Your task to perform on an android device: check the backup settings in the google photos Image 0: 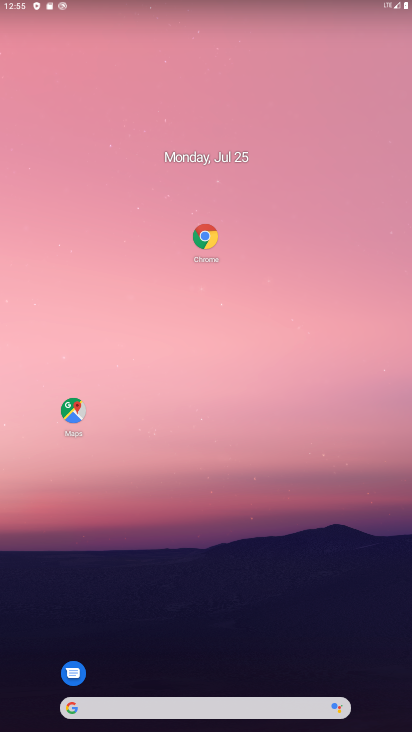
Step 0: drag from (285, 709) to (322, 41)
Your task to perform on an android device: check the backup settings in the google photos Image 1: 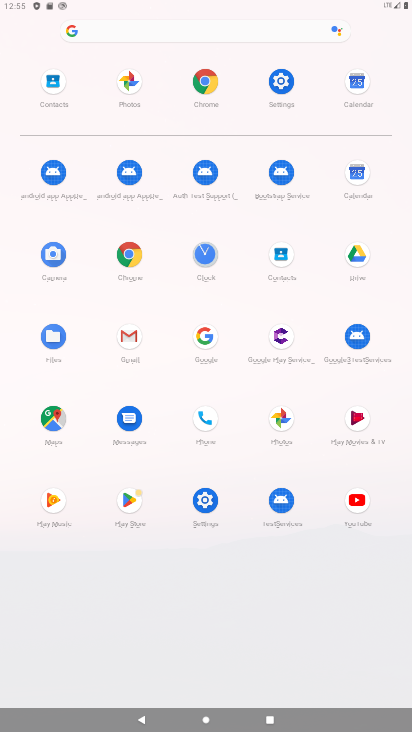
Step 1: click (287, 417)
Your task to perform on an android device: check the backup settings in the google photos Image 2: 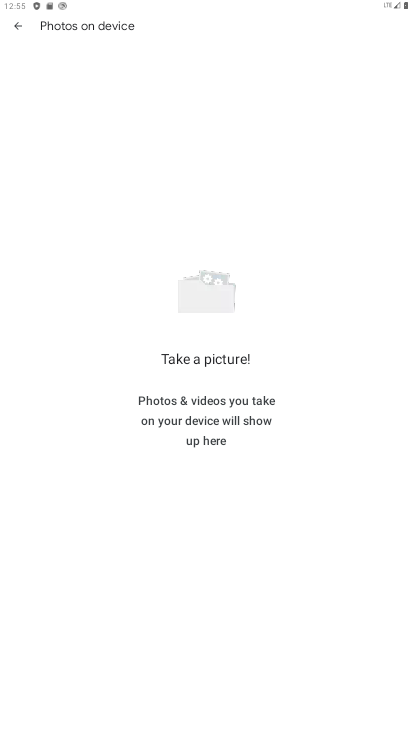
Step 2: press home button
Your task to perform on an android device: check the backup settings in the google photos Image 3: 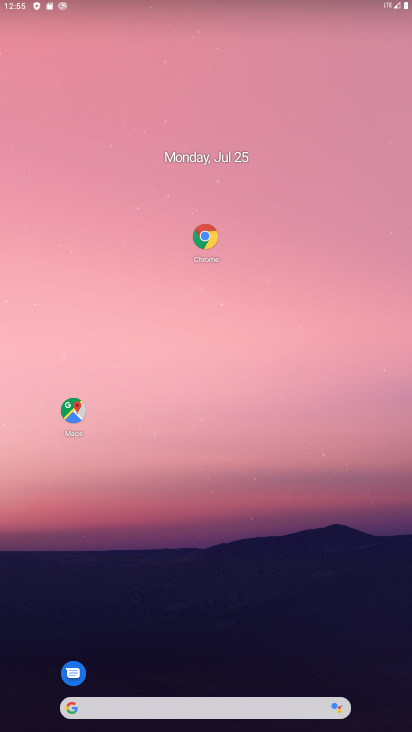
Step 3: drag from (243, 722) to (330, 65)
Your task to perform on an android device: check the backup settings in the google photos Image 4: 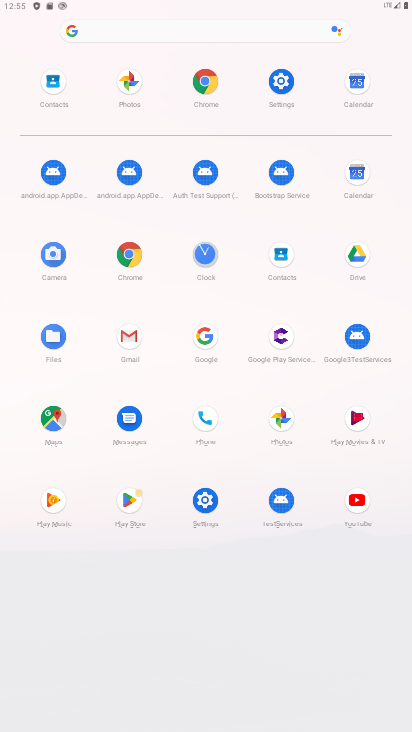
Step 4: click (269, 423)
Your task to perform on an android device: check the backup settings in the google photos Image 5: 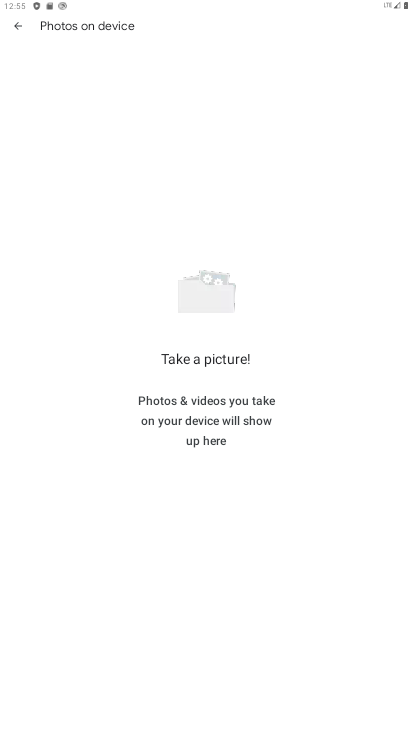
Step 5: press back button
Your task to perform on an android device: check the backup settings in the google photos Image 6: 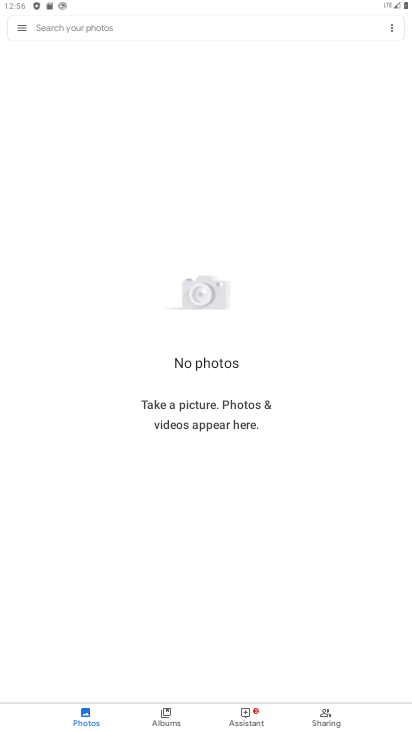
Step 6: click (396, 26)
Your task to perform on an android device: check the backup settings in the google photos Image 7: 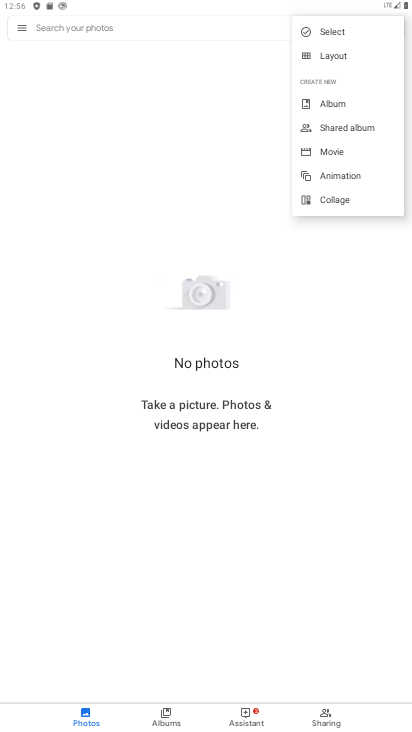
Step 7: click (20, 26)
Your task to perform on an android device: check the backup settings in the google photos Image 8: 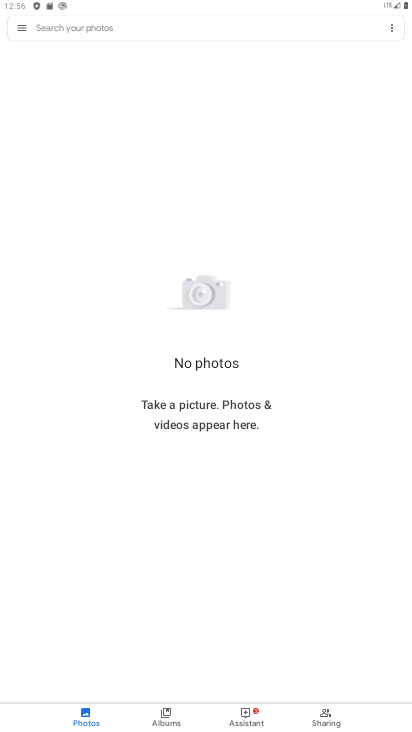
Step 8: click (20, 26)
Your task to perform on an android device: check the backup settings in the google photos Image 9: 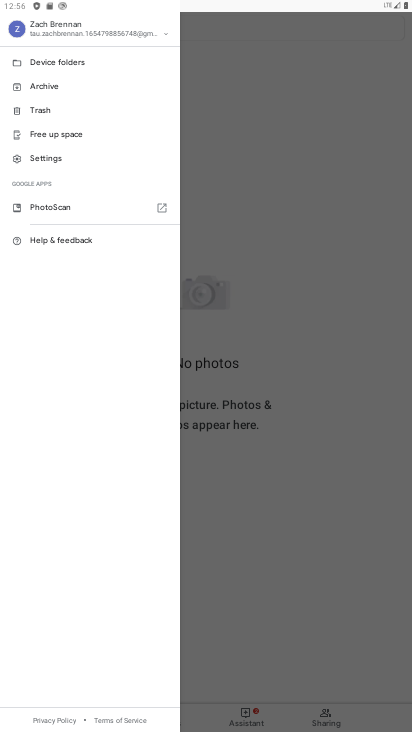
Step 9: click (60, 152)
Your task to perform on an android device: check the backup settings in the google photos Image 10: 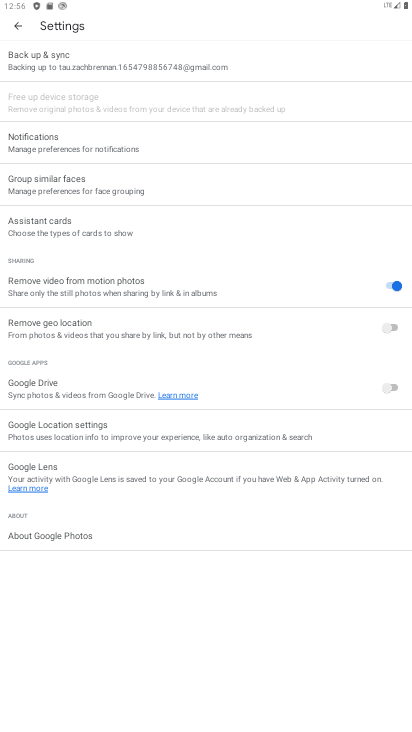
Step 10: click (70, 53)
Your task to perform on an android device: check the backup settings in the google photos Image 11: 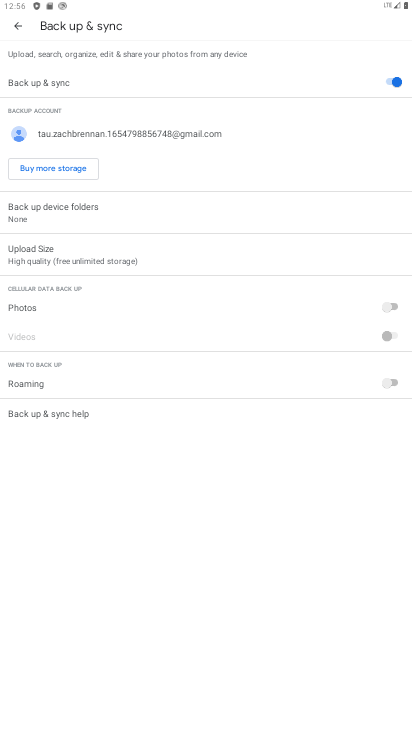
Step 11: task complete